Your task to perform on an android device: set an alarm Image 0: 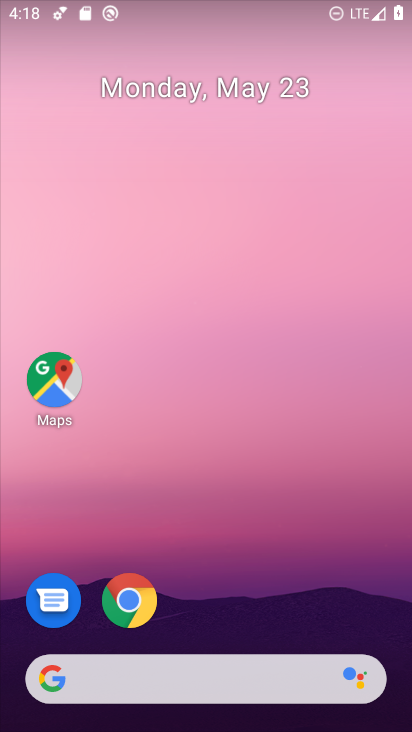
Step 0: drag from (315, 642) to (289, 9)
Your task to perform on an android device: set an alarm Image 1: 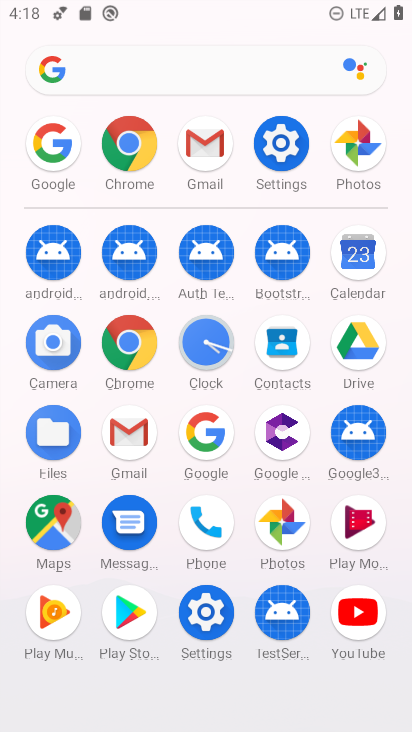
Step 1: click (196, 348)
Your task to perform on an android device: set an alarm Image 2: 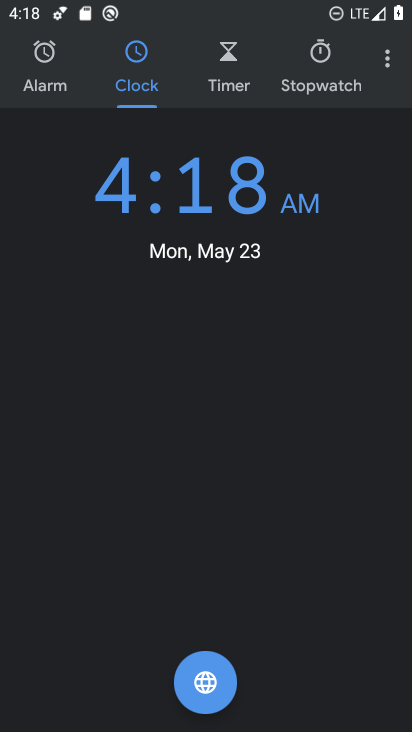
Step 2: click (51, 73)
Your task to perform on an android device: set an alarm Image 3: 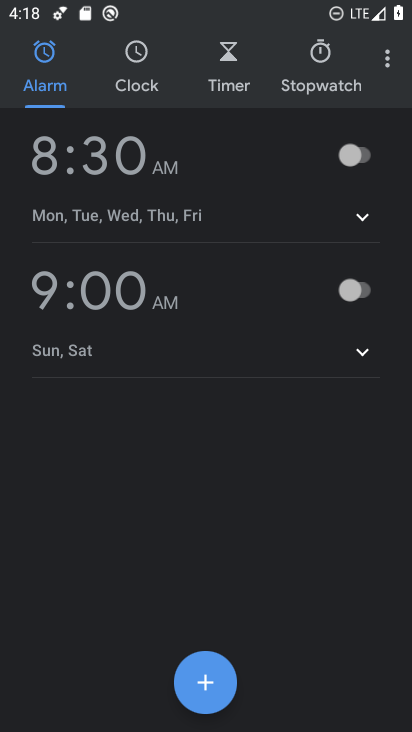
Step 3: click (206, 680)
Your task to perform on an android device: set an alarm Image 4: 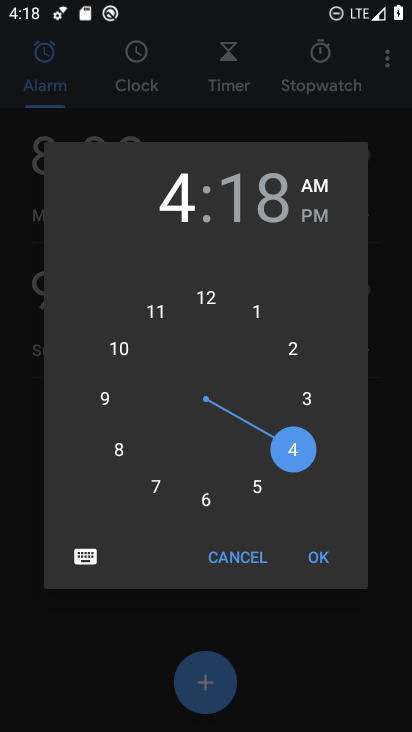
Step 4: click (298, 454)
Your task to perform on an android device: set an alarm Image 5: 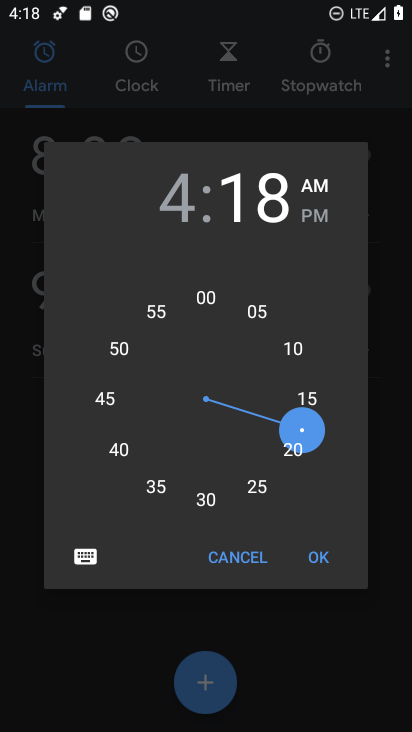
Step 5: click (205, 299)
Your task to perform on an android device: set an alarm Image 6: 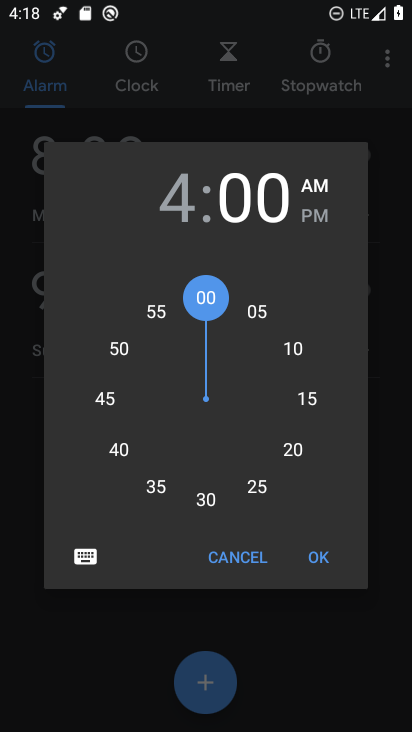
Step 6: click (329, 559)
Your task to perform on an android device: set an alarm Image 7: 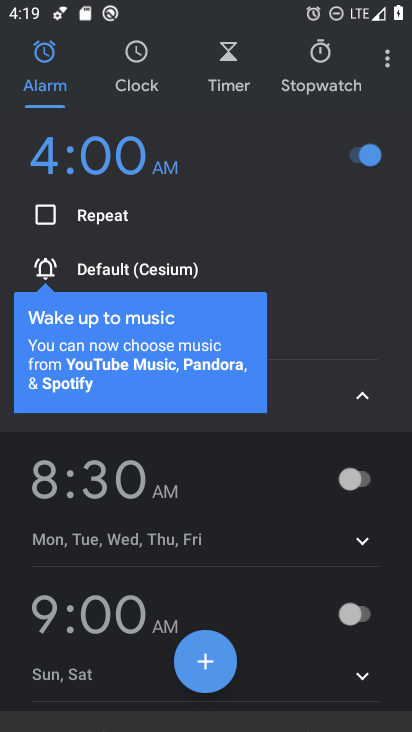
Step 7: task complete